Your task to perform on an android device: What's on the menu at Burger King? Image 0: 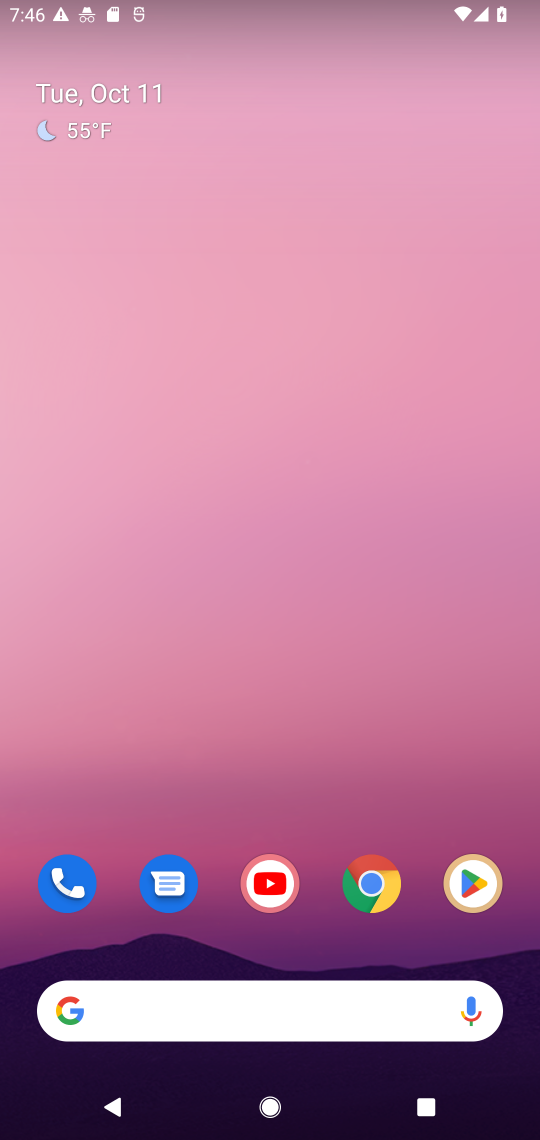
Step 0: drag from (337, 963) to (6, 165)
Your task to perform on an android device: What's on the menu at Burger King? Image 1: 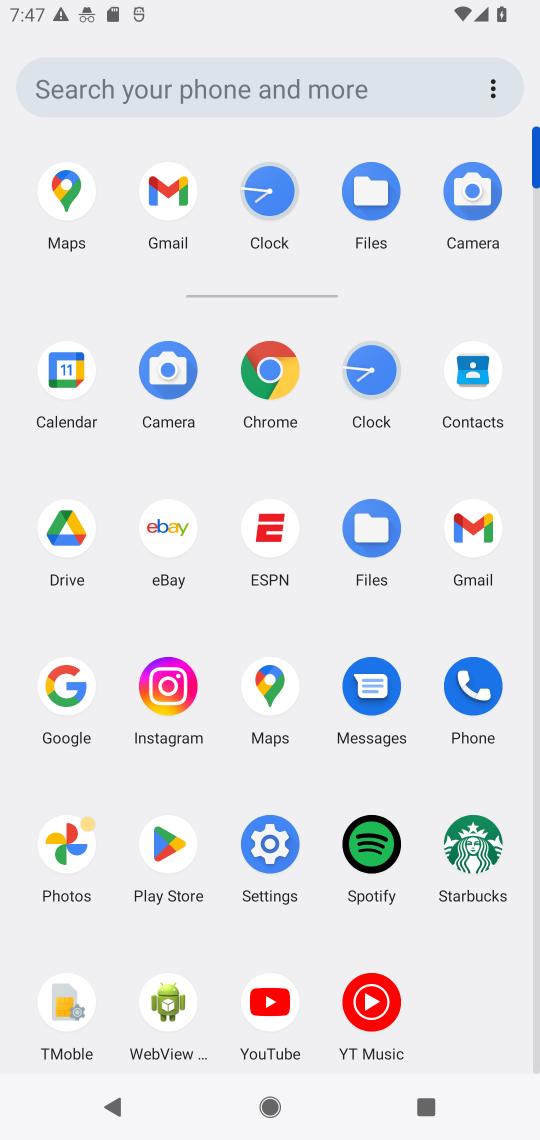
Step 1: click (275, 381)
Your task to perform on an android device: What's on the menu at Burger King? Image 2: 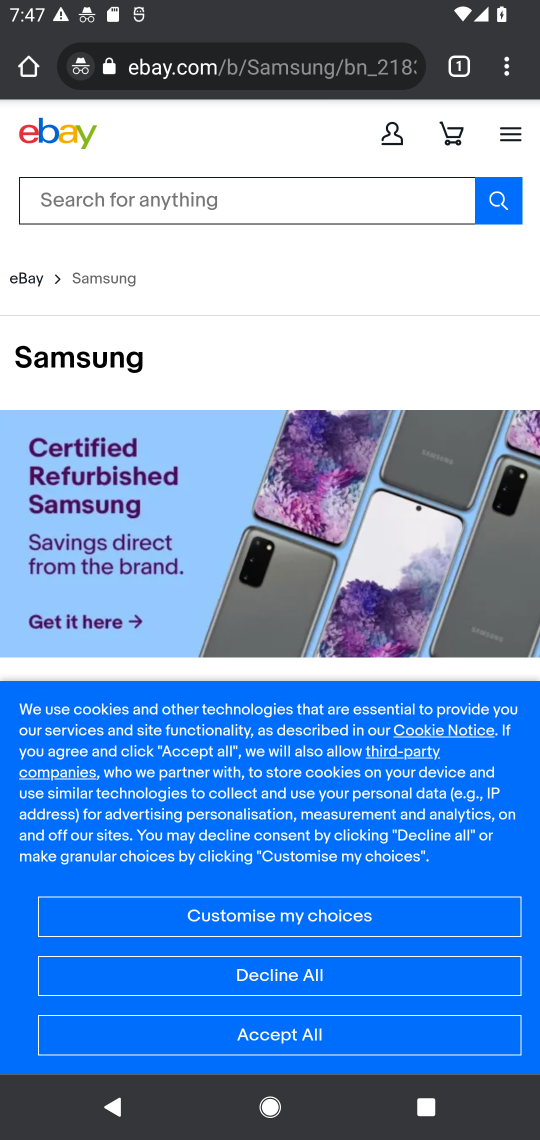
Step 2: click (251, 70)
Your task to perform on an android device: What's on the menu at Burger King? Image 3: 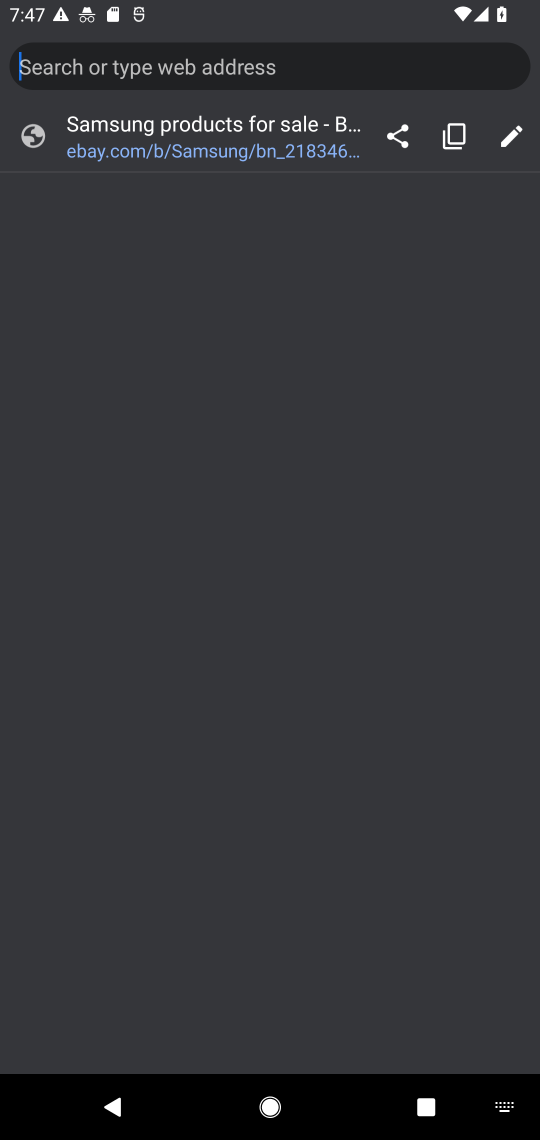
Step 3: click (81, 77)
Your task to perform on an android device: What's on the menu at Burger King? Image 4: 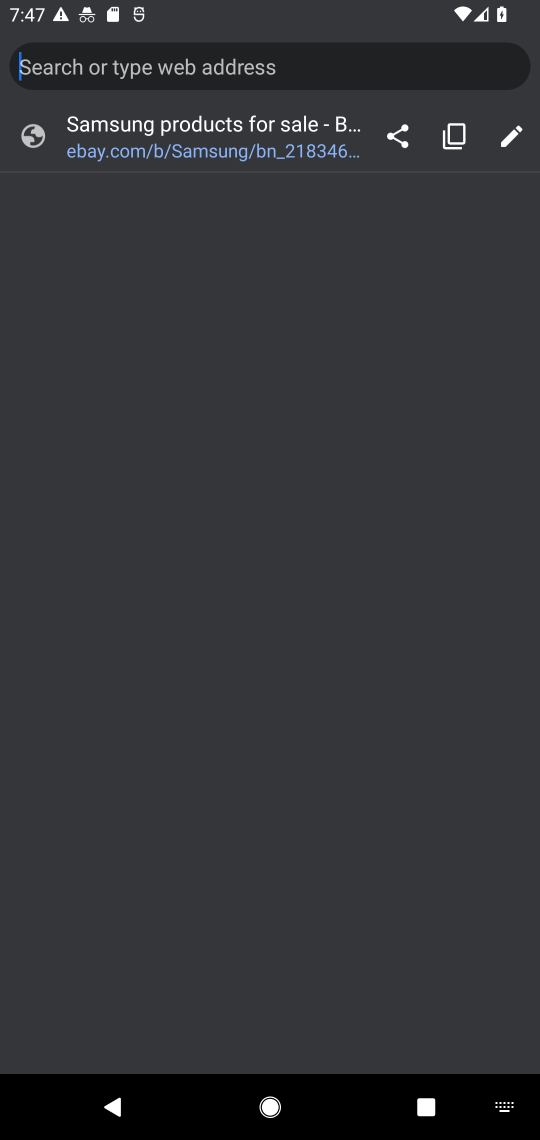
Step 4: type "menu at Burger King?"
Your task to perform on an android device: What's on the menu at Burger King? Image 5: 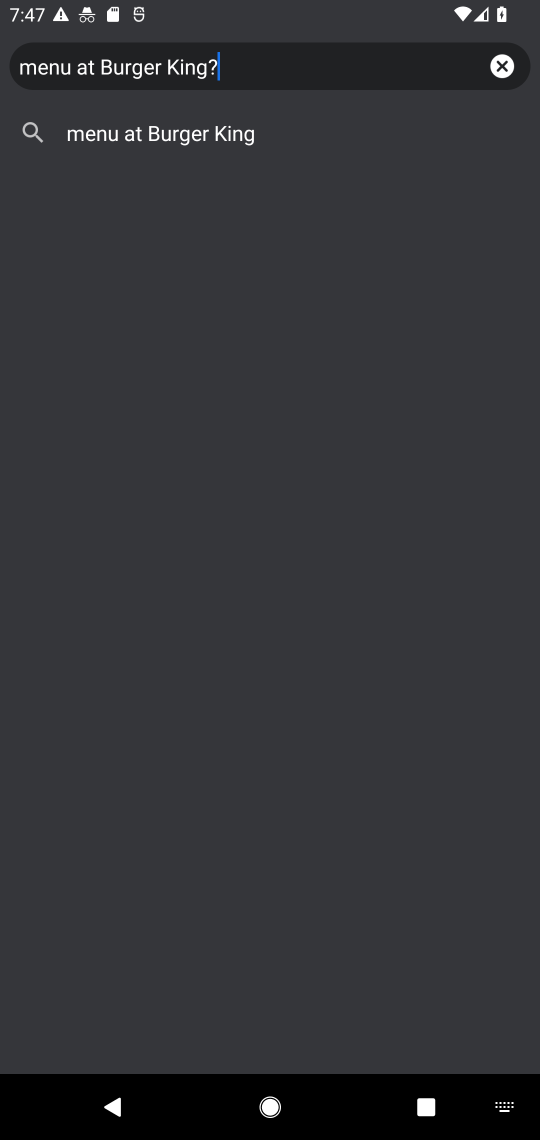
Step 5: press enter
Your task to perform on an android device: What's on the menu at Burger King? Image 6: 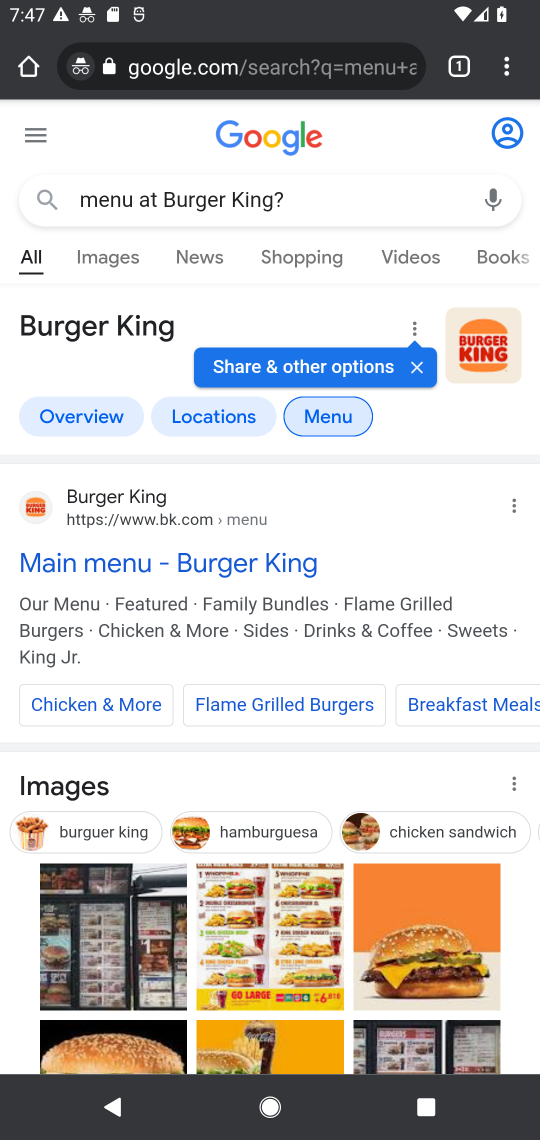
Step 6: click (129, 566)
Your task to perform on an android device: What's on the menu at Burger King? Image 7: 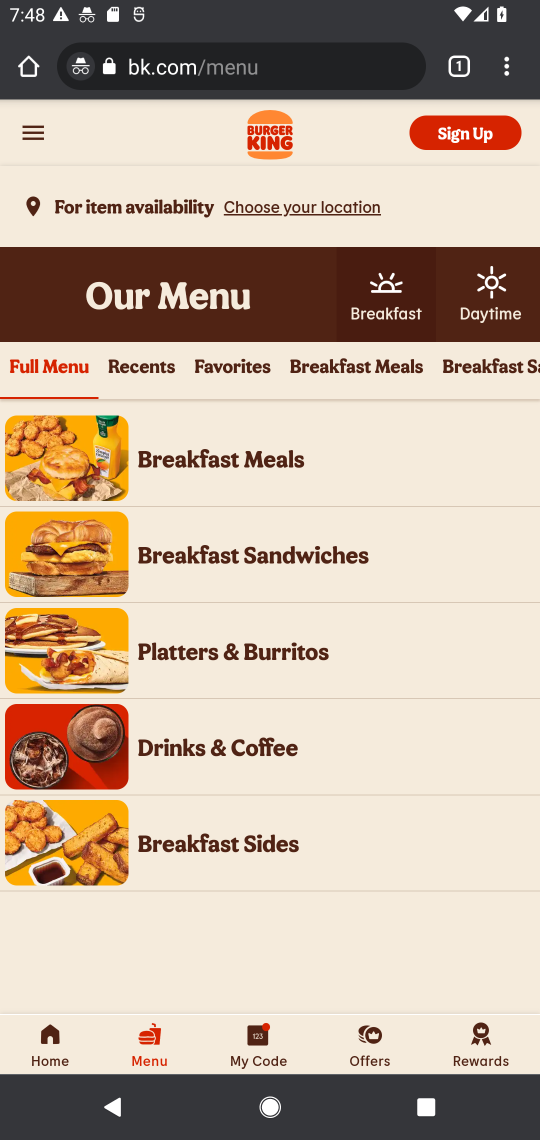
Step 7: task complete